Your task to perform on an android device: Go to privacy settings Image 0: 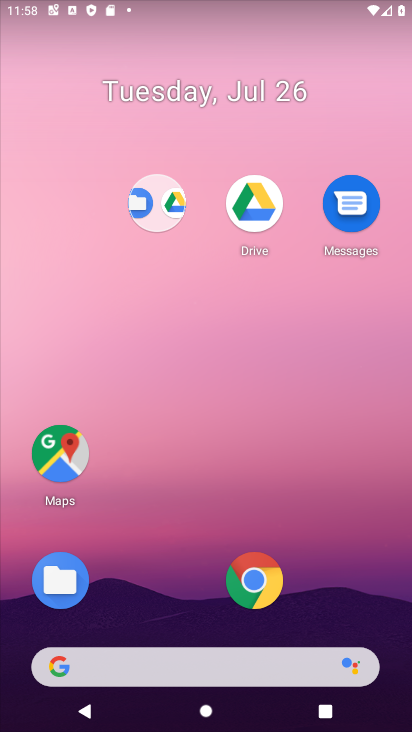
Step 0: drag from (201, 437) to (230, 115)
Your task to perform on an android device: Go to privacy settings Image 1: 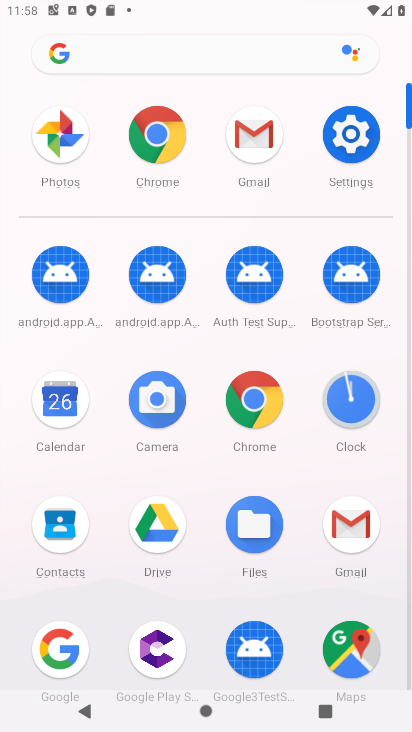
Step 1: click (346, 158)
Your task to perform on an android device: Go to privacy settings Image 2: 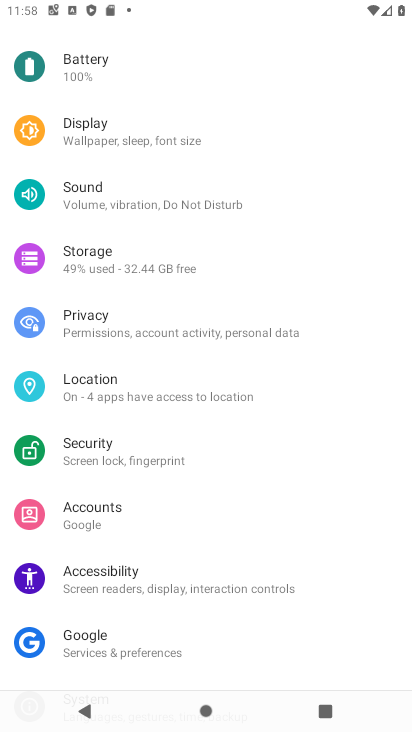
Step 2: click (98, 348)
Your task to perform on an android device: Go to privacy settings Image 3: 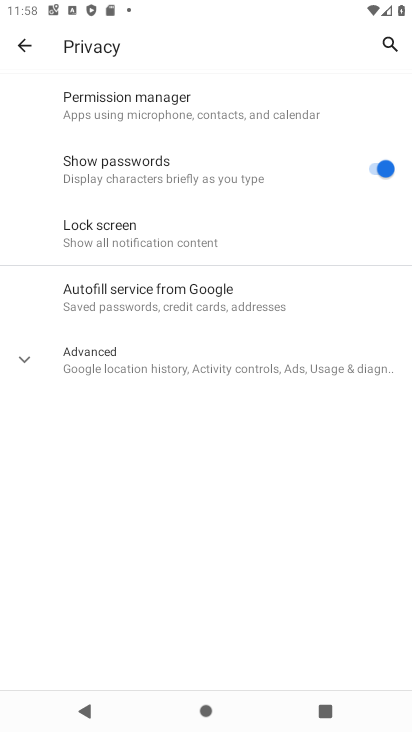
Step 3: task complete